Your task to perform on an android device: Open the map Image 0: 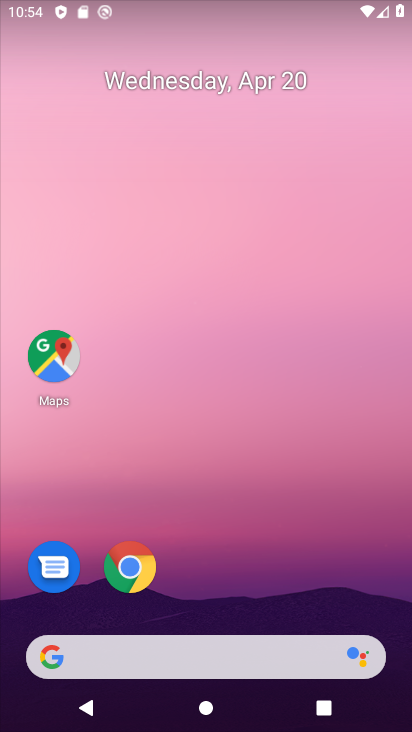
Step 0: click (54, 357)
Your task to perform on an android device: Open the map Image 1: 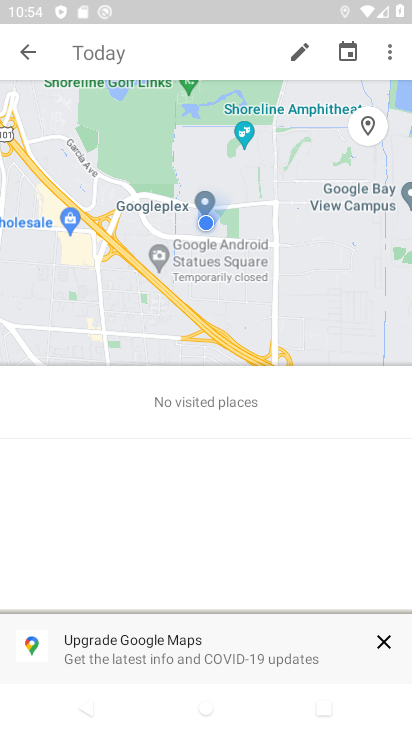
Step 1: click (34, 46)
Your task to perform on an android device: Open the map Image 2: 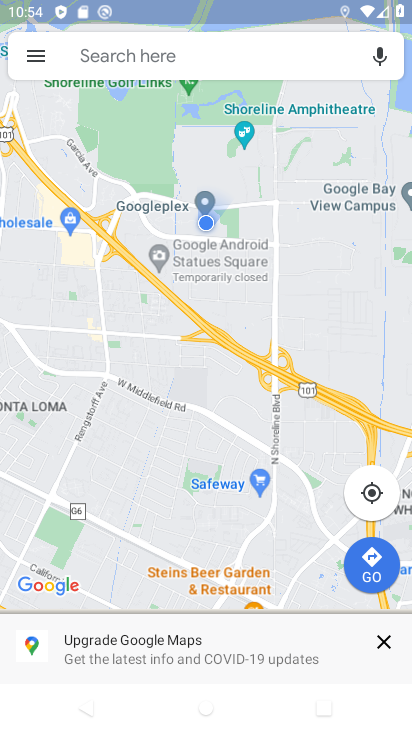
Step 2: task complete